Your task to perform on an android device: turn off location Image 0: 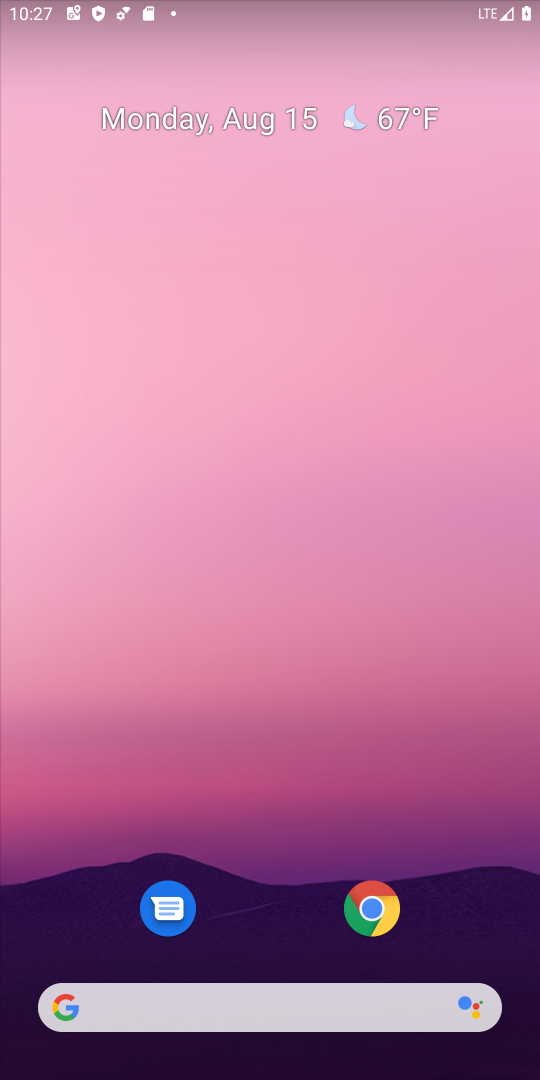
Step 0: drag from (268, 918) to (367, 15)
Your task to perform on an android device: turn off location Image 1: 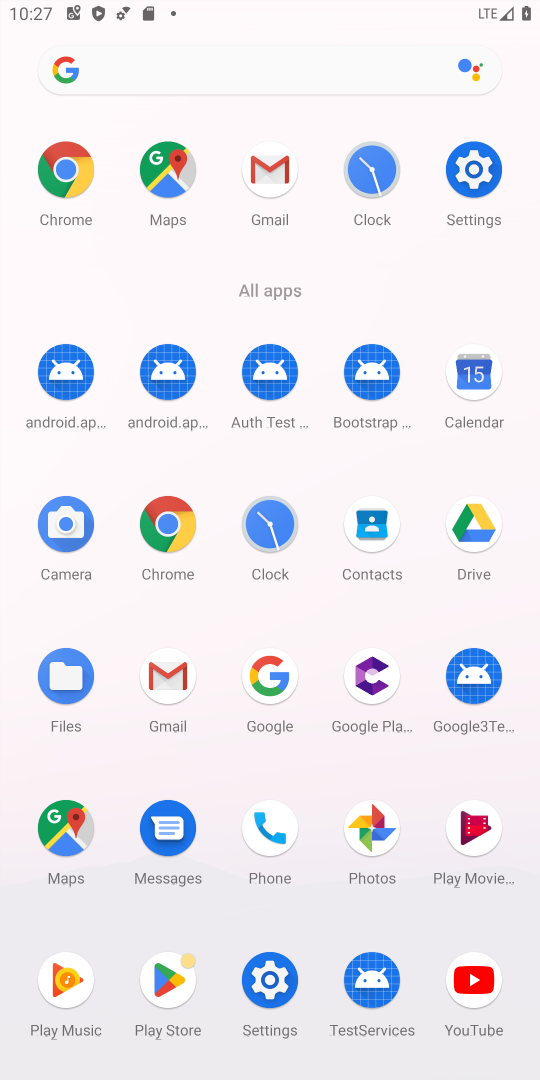
Step 1: click (478, 171)
Your task to perform on an android device: turn off location Image 2: 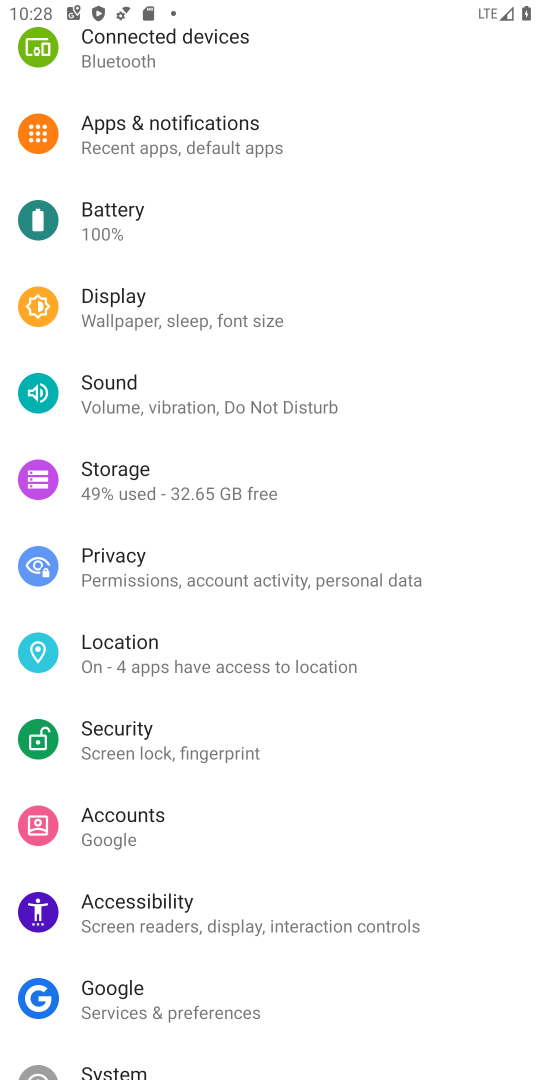
Step 2: click (131, 657)
Your task to perform on an android device: turn off location Image 3: 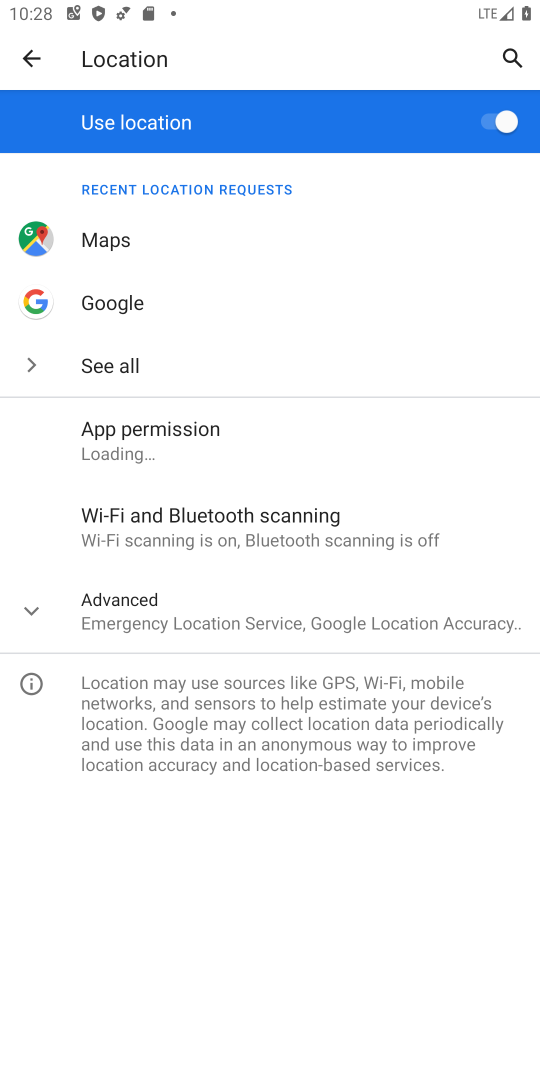
Step 3: click (497, 113)
Your task to perform on an android device: turn off location Image 4: 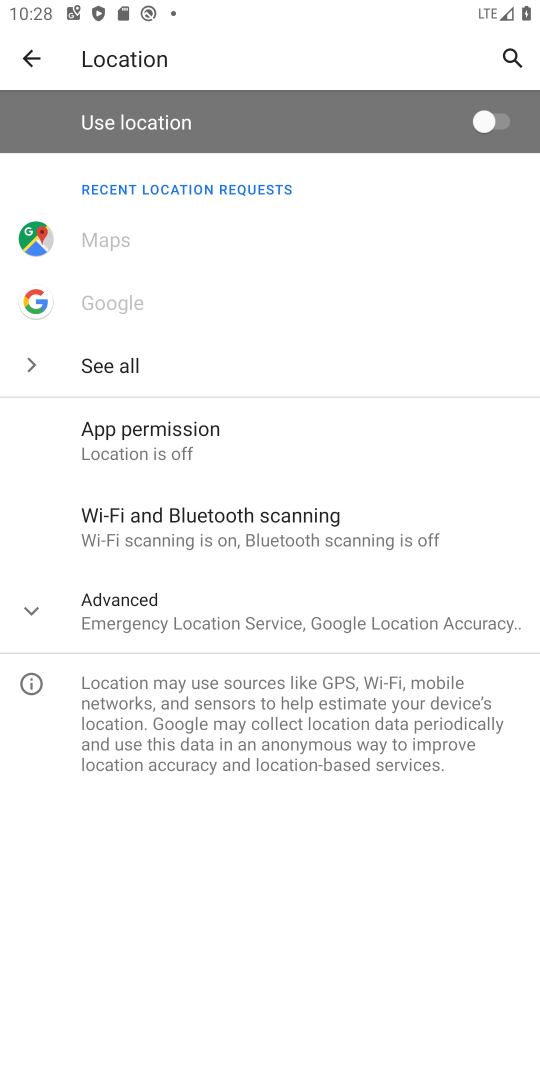
Step 4: task complete